Your task to perform on an android device: toggle wifi Image 0: 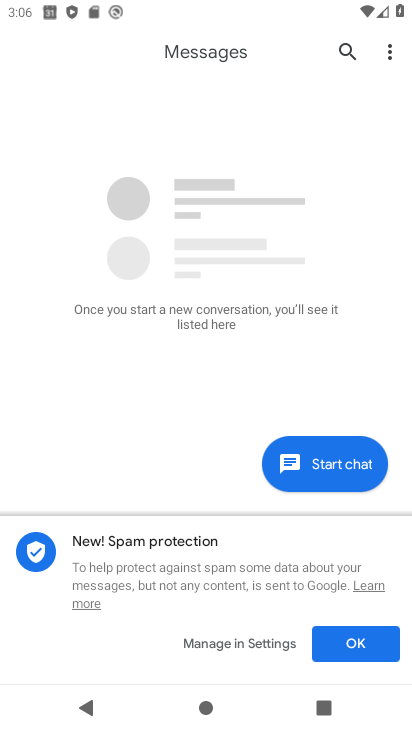
Step 0: press back button
Your task to perform on an android device: toggle wifi Image 1: 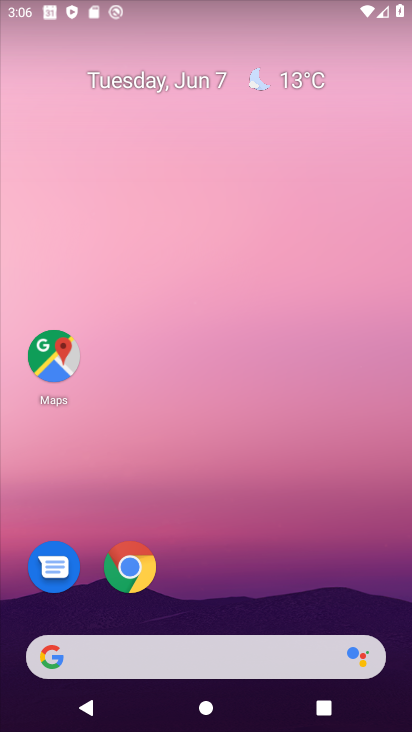
Step 1: drag from (102, 5) to (84, 348)
Your task to perform on an android device: toggle wifi Image 2: 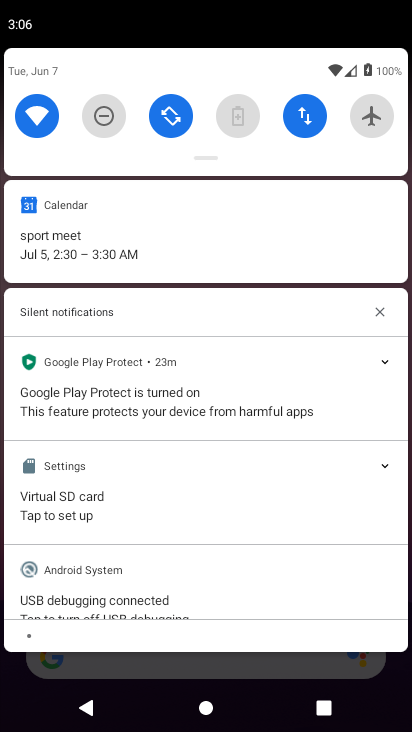
Step 2: click (32, 114)
Your task to perform on an android device: toggle wifi Image 3: 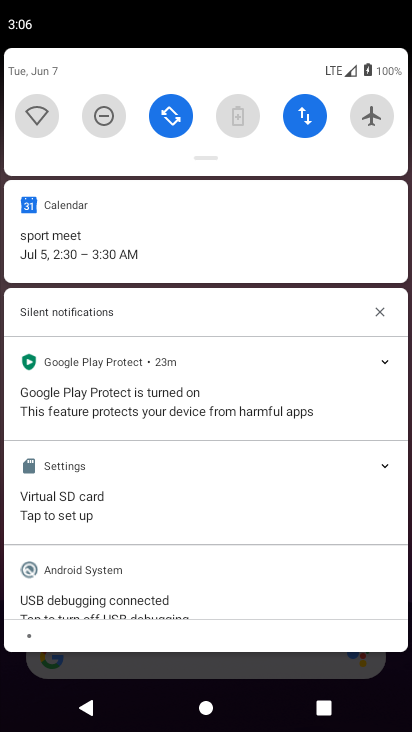
Step 3: task complete